Your task to perform on an android device: What's the weather today? Image 0: 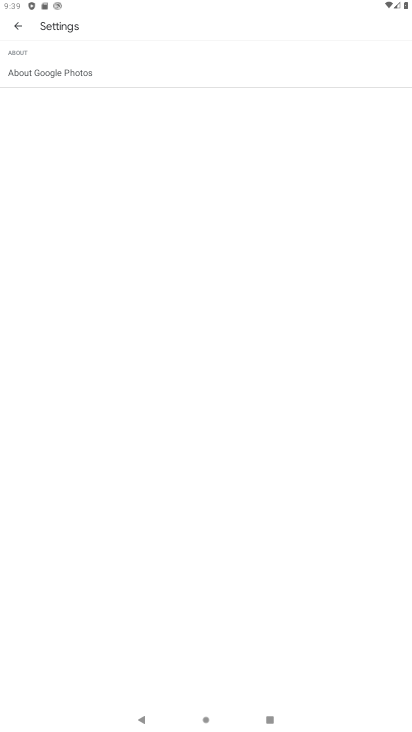
Step 0: press home button
Your task to perform on an android device: What's the weather today? Image 1: 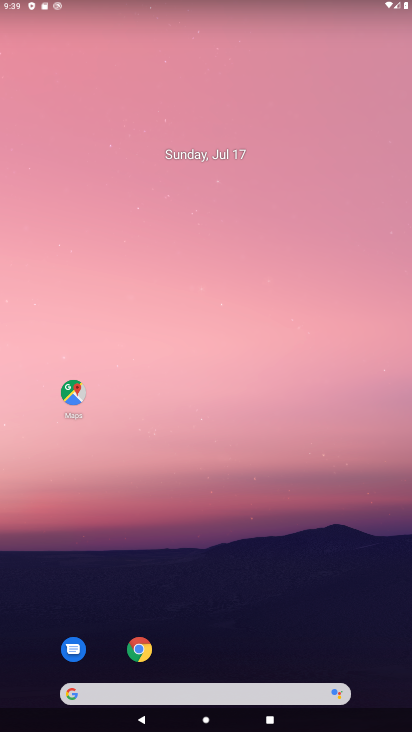
Step 1: click (105, 693)
Your task to perform on an android device: What's the weather today? Image 2: 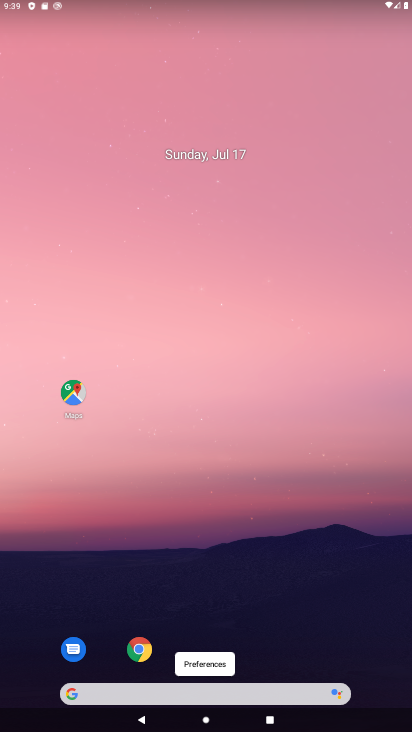
Step 2: click (100, 691)
Your task to perform on an android device: What's the weather today? Image 3: 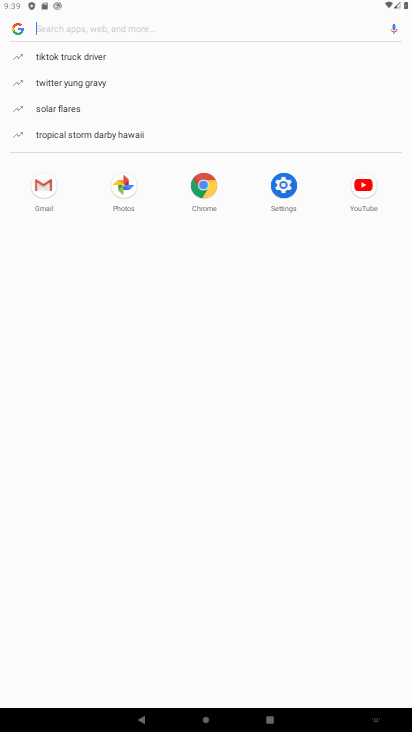
Step 3: type "What's the weather today?"
Your task to perform on an android device: What's the weather today? Image 4: 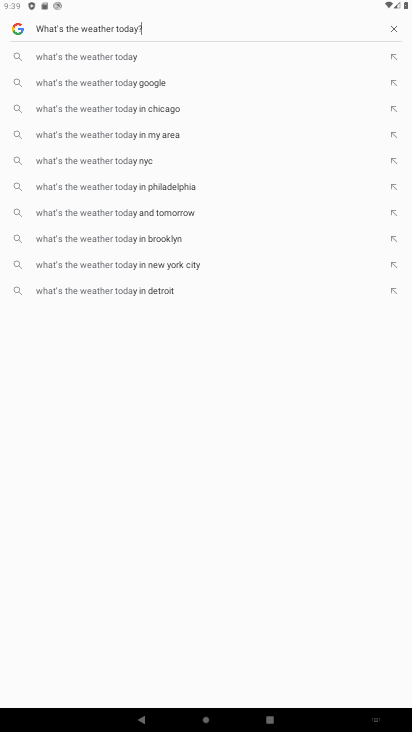
Step 4: type ""
Your task to perform on an android device: What's the weather today? Image 5: 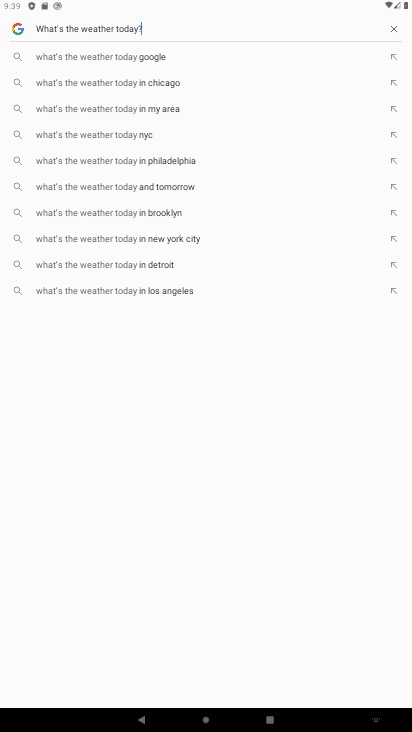
Step 5: type ""
Your task to perform on an android device: What's the weather today? Image 6: 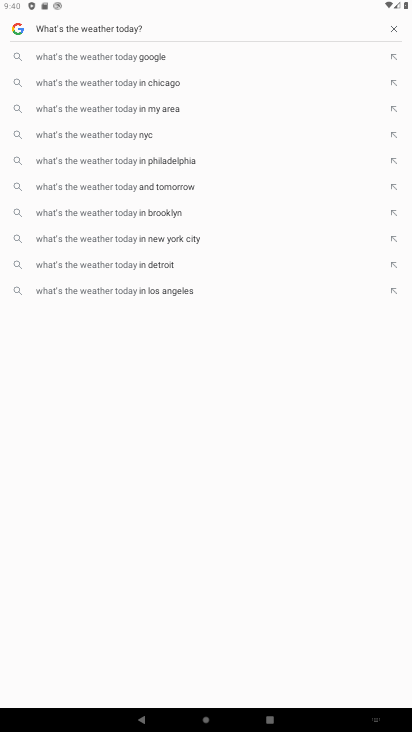
Step 6: task complete